Your task to perform on an android device: uninstall "Spotify" Image 0: 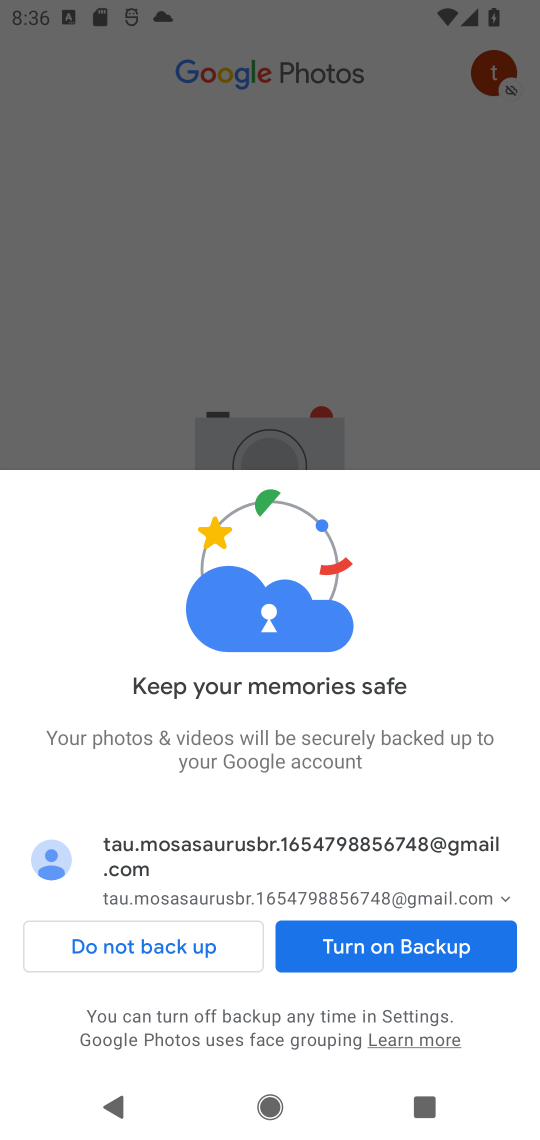
Step 0: press home button
Your task to perform on an android device: uninstall "Spotify" Image 1: 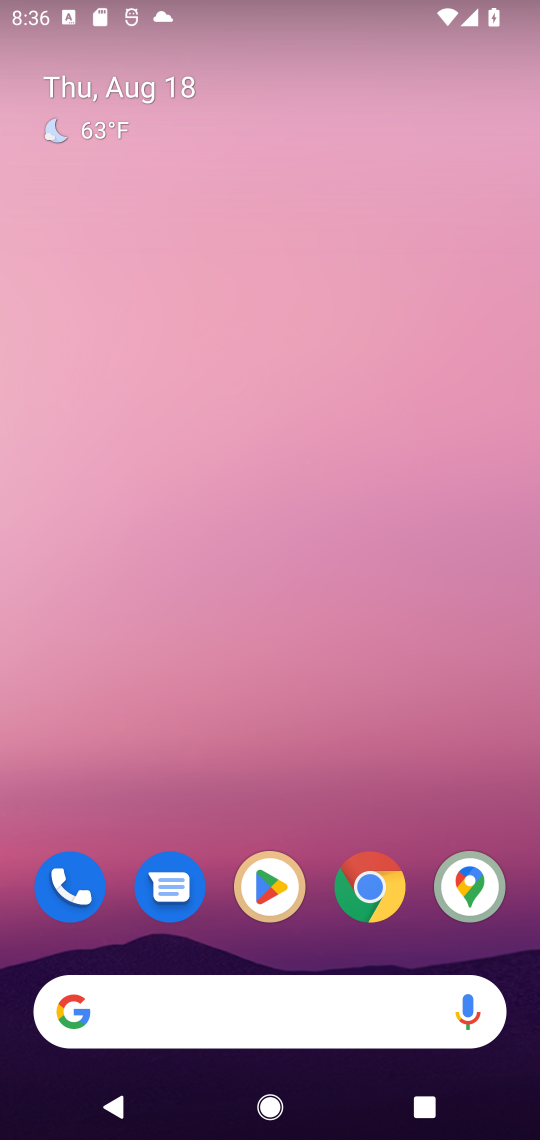
Step 1: click (276, 890)
Your task to perform on an android device: uninstall "Spotify" Image 2: 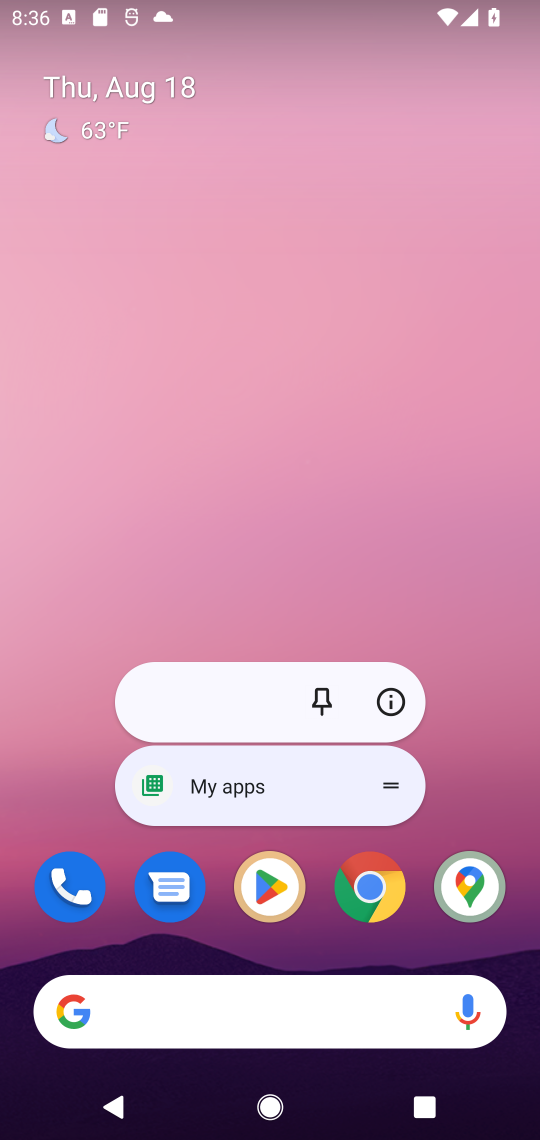
Step 2: click (273, 897)
Your task to perform on an android device: uninstall "Spotify" Image 3: 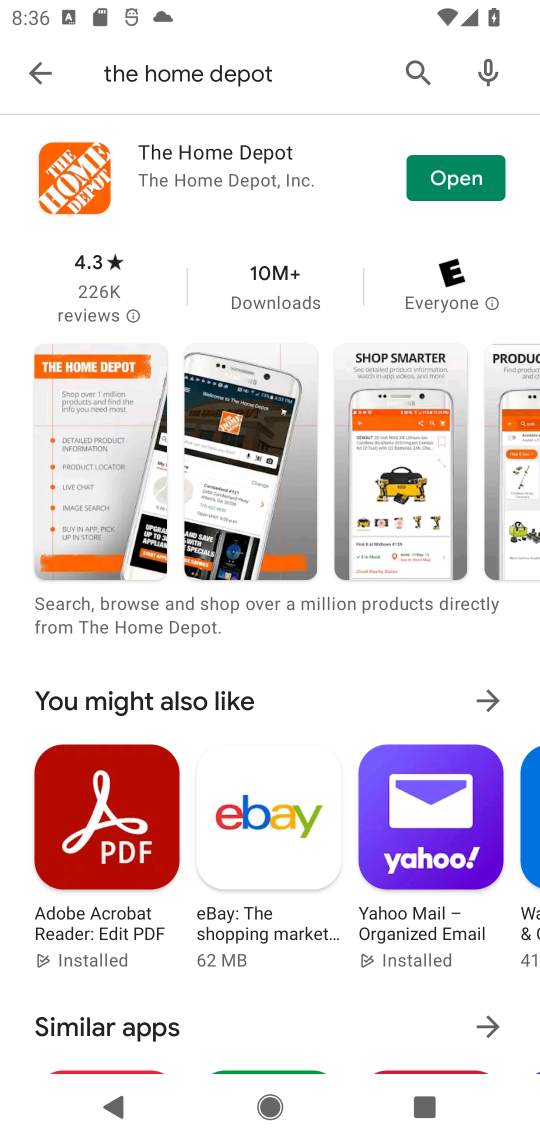
Step 3: click (417, 66)
Your task to perform on an android device: uninstall "Spotify" Image 4: 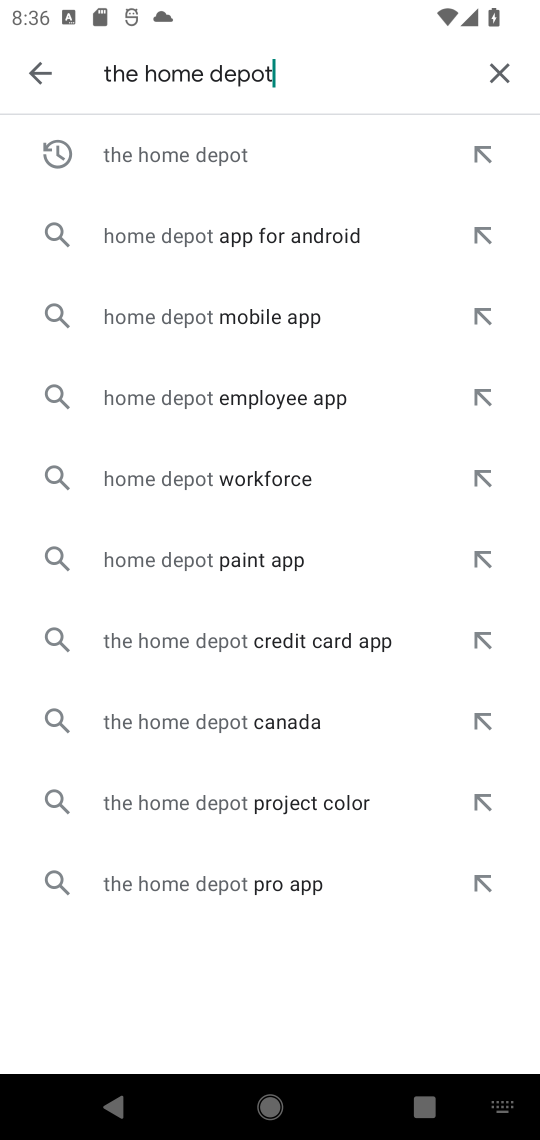
Step 4: click (505, 59)
Your task to perform on an android device: uninstall "Spotify" Image 5: 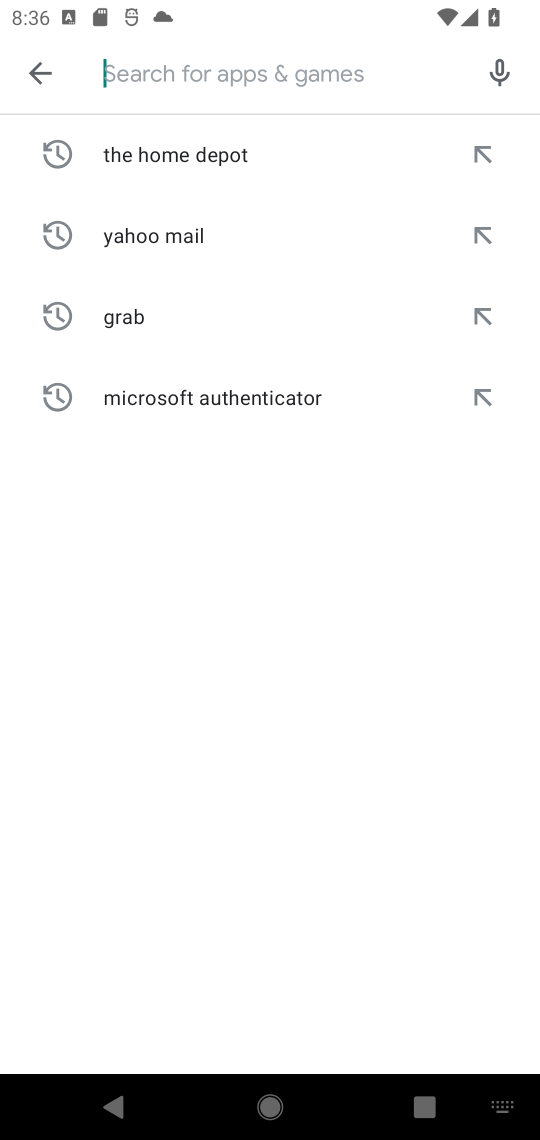
Step 5: type "Spotify"
Your task to perform on an android device: uninstall "Spotify" Image 6: 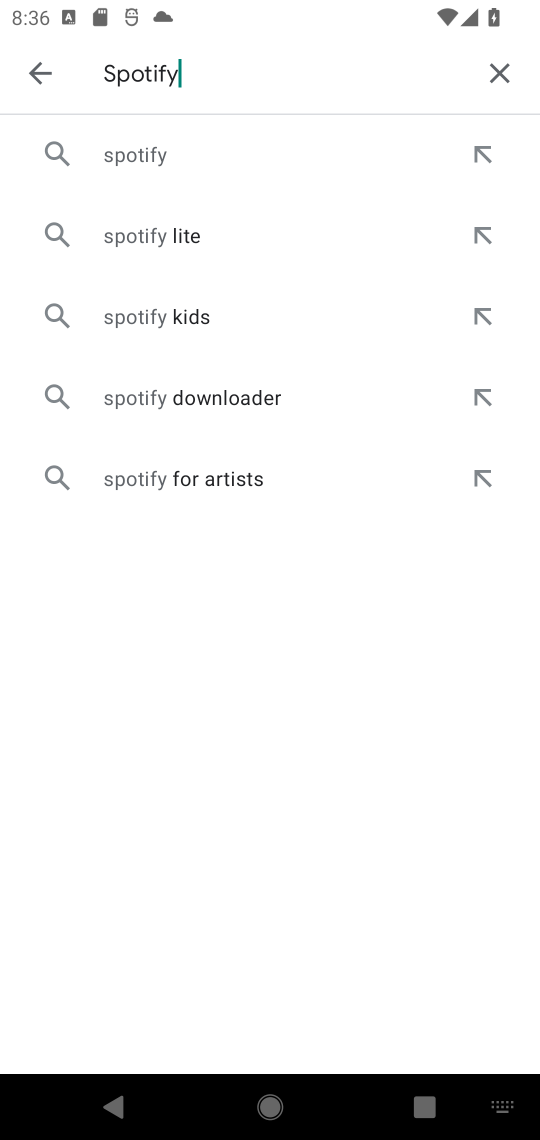
Step 6: click (129, 154)
Your task to perform on an android device: uninstall "Spotify" Image 7: 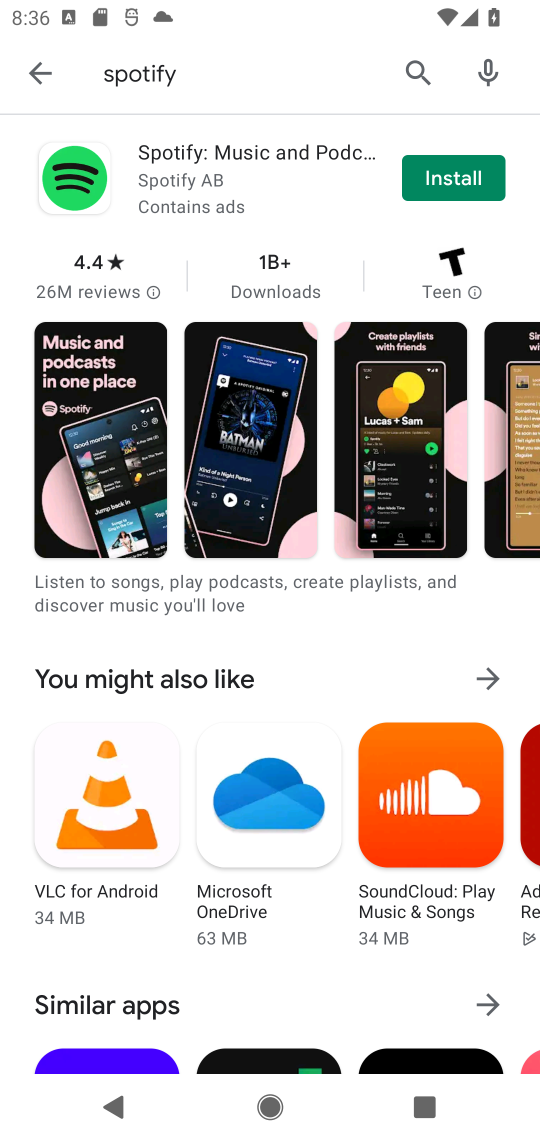
Step 7: click (214, 155)
Your task to perform on an android device: uninstall "Spotify" Image 8: 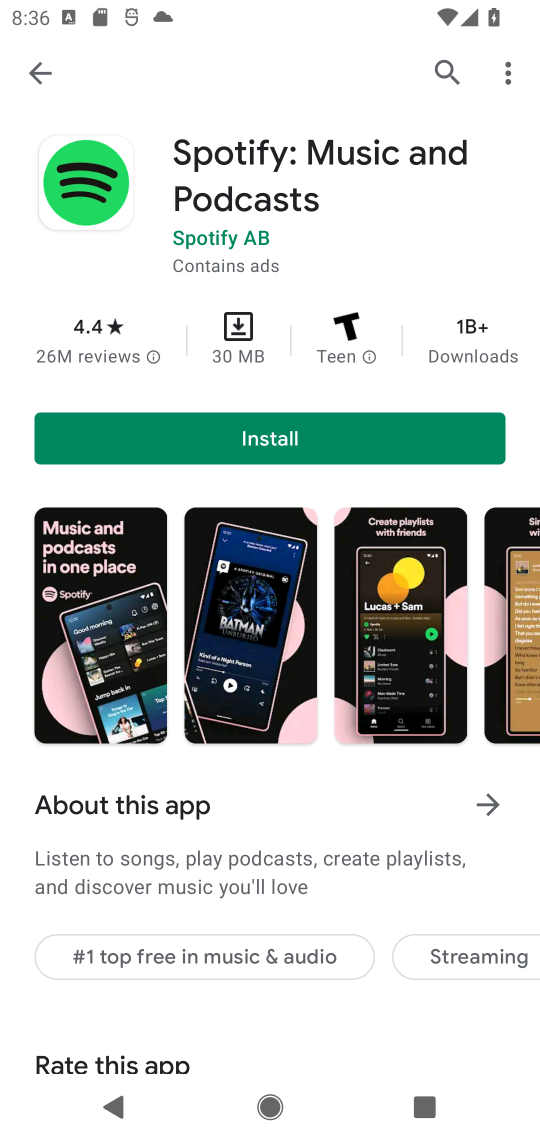
Step 8: task complete